Your task to perform on an android device: Open display settings Image 0: 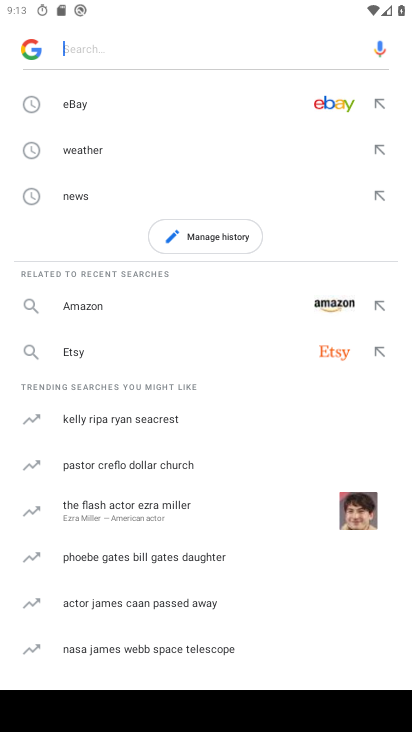
Step 0: press home button
Your task to perform on an android device: Open display settings Image 1: 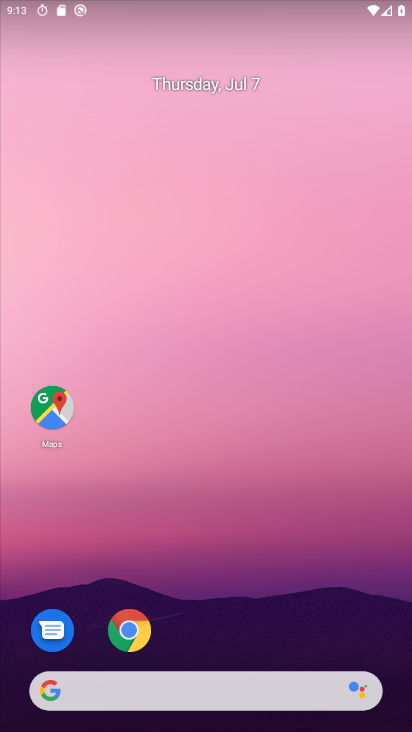
Step 1: drag from (31, 706) to (192, 2)
Your task to perform on an android device: Open display settings Image 2: 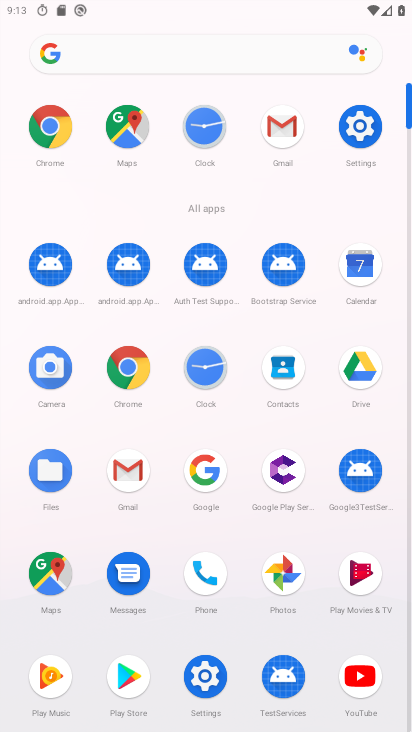
Step 2: click (210, 694)
Your task to perform on an android device: Open display settings Image 3: 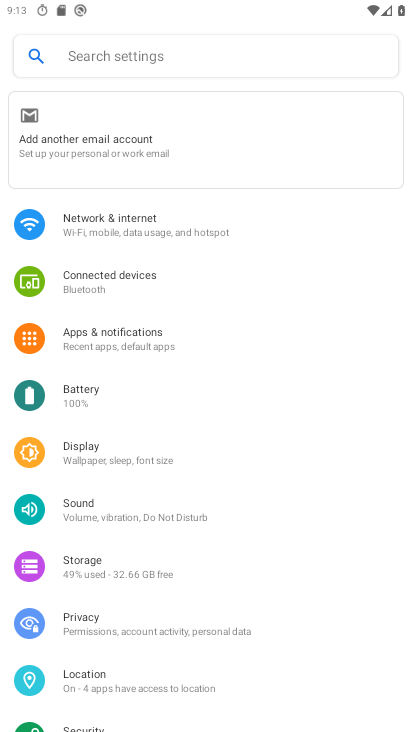
Step 3: click (106, 458)
Your task to perform on an android device: Open display settings Image 4: 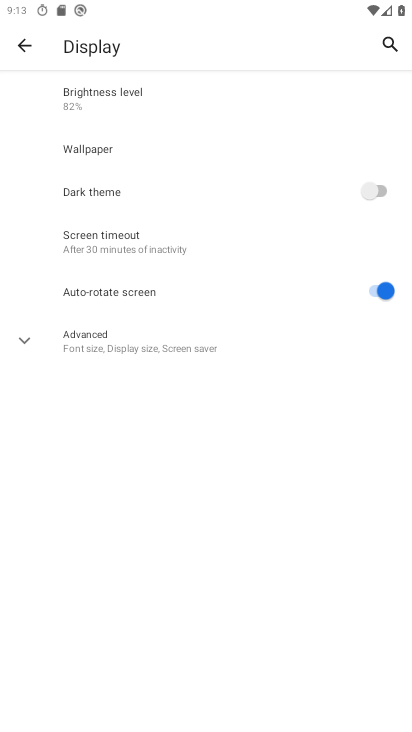
Step 4: task complete